Your task to perform on an android device: Do I have any events today? Image 0: 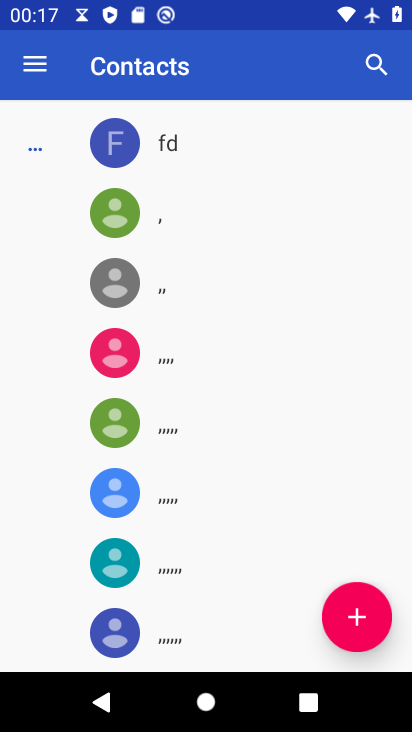
Step 0: press home button
Your task to perform on an android device: Do I have any events today? Image 1: 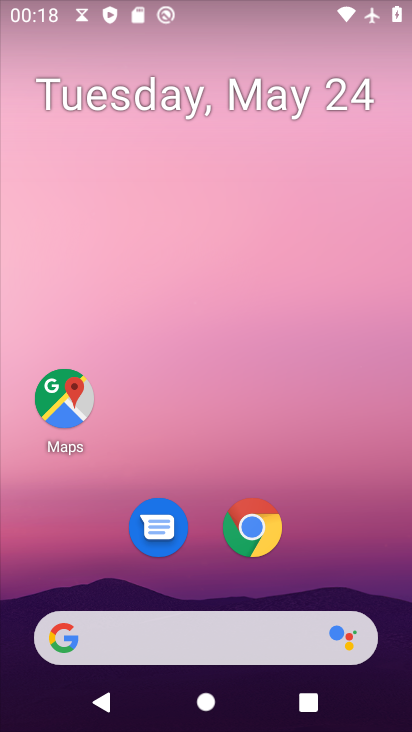
Step 1: drag from (146, 645) to (266, 129)
Your task to perform on an android device: Do I have any events today? Image 2: 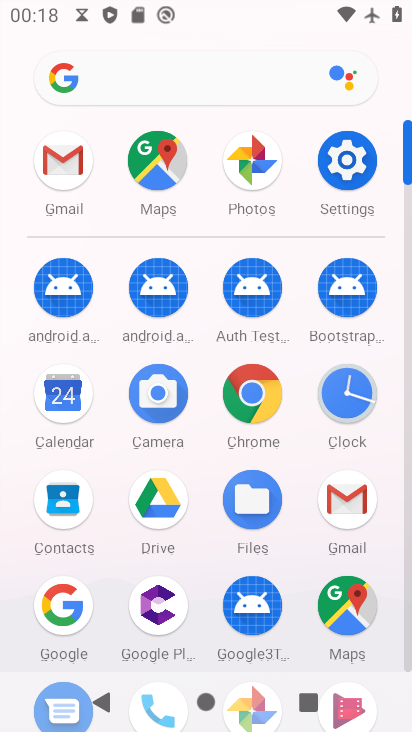
Step 2: click (62, 408)
Your task to perform on an android device: Do I have any events today? Image 3: 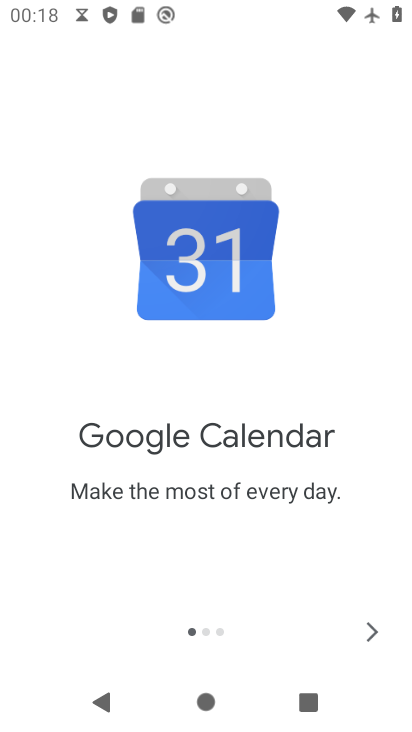
Step 3: click (368, 624)
Your task to perform on an android device: Do I have any events today? Image 4: 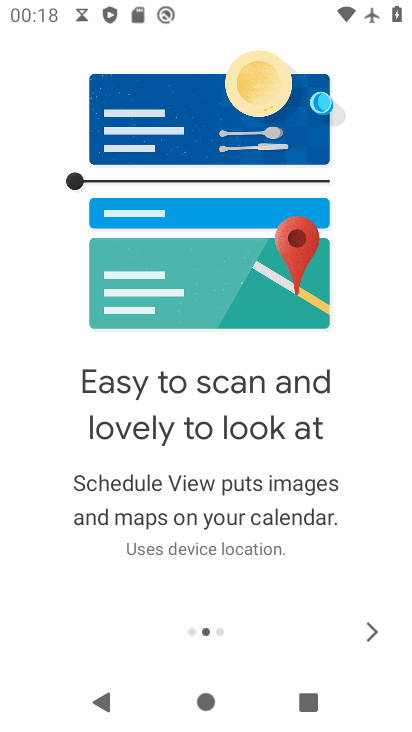
Step 4: click (368, 624)
Your task to perform on an android device: Do I have any events today? Image 5: 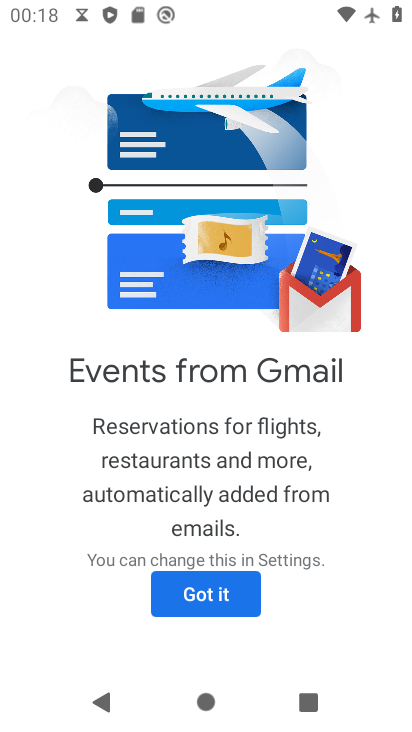
Step 5: click (218, 592)
Your task to perform on an android device: Do I have any events today? Image 6: 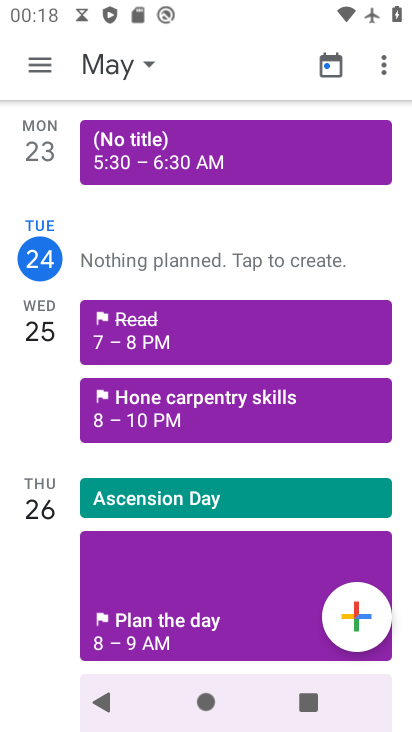
Step 6: click (118, 67)
Your task to perform on an android device: Do I have any events today? Image 7: 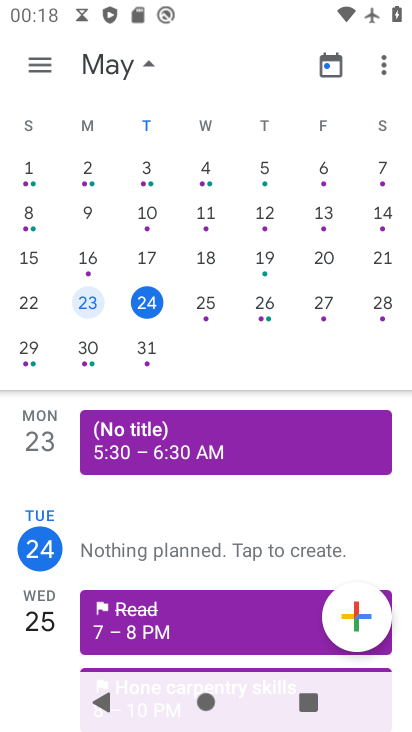
Step 7: click (147, 308)
Your task to perform on an android device: Do I have any events today? Image 8: 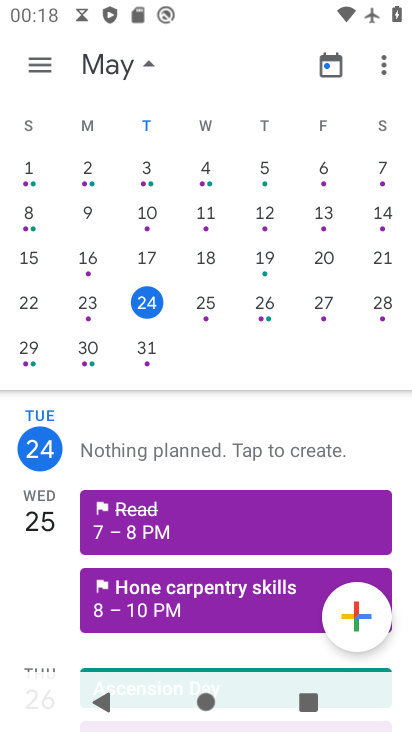
Step 8: click (38, 63)
Your task to perform on an android device: Do I have any events today? Image 9: 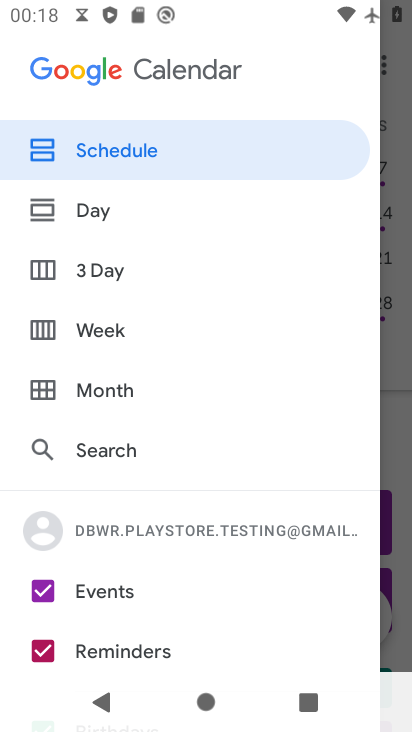
Step 9: click (87, 153)
Your task to perform on an android device: Do I have any events today? Image 10: 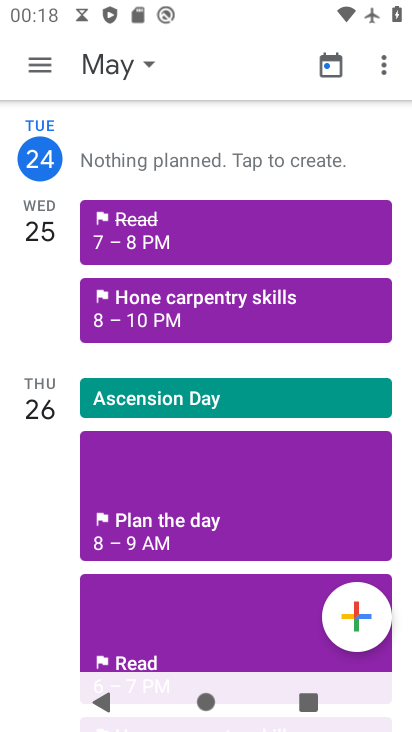
Step 10: task complete